Your task to perform on an android device: snooze an email in the gmail app Image 0: 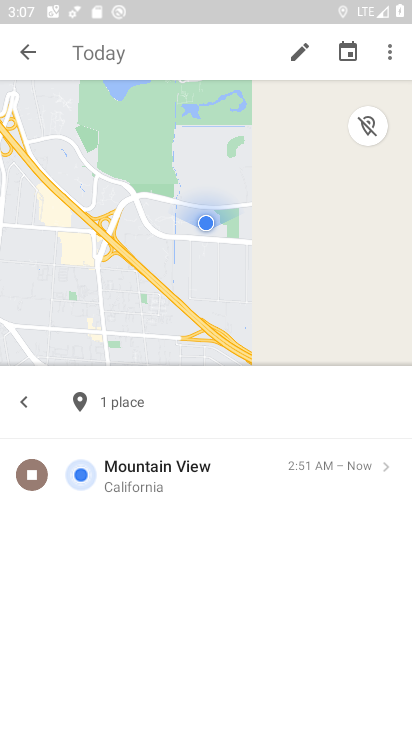
Step 0: press home button
Your task to perform on an android device: snooze an email in the gmail app Image 1: 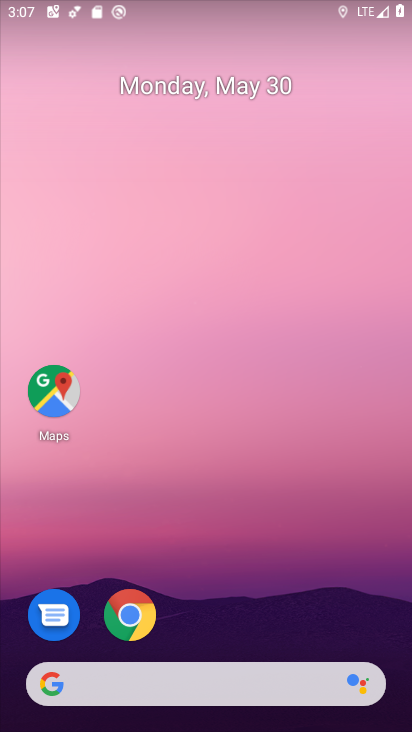
Step 1: drag from (228, 606) to (236, 37)
Your task to perform on an android device: snooze an email in the gmail app Image 2: 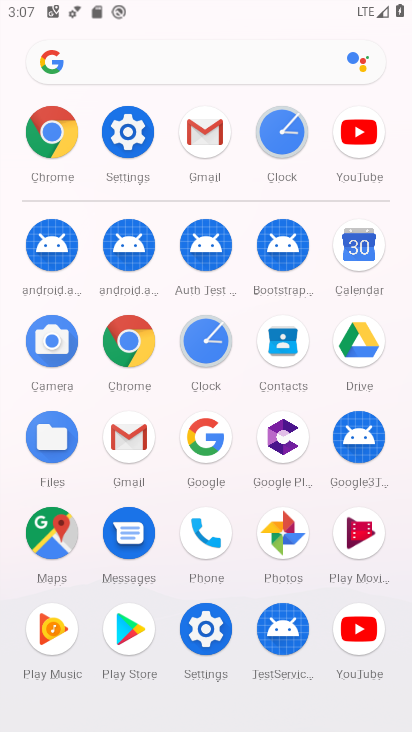
Step 2: click (209, 122)
Your task to perform on an android device: snooze an email in the gmail app Image 3: 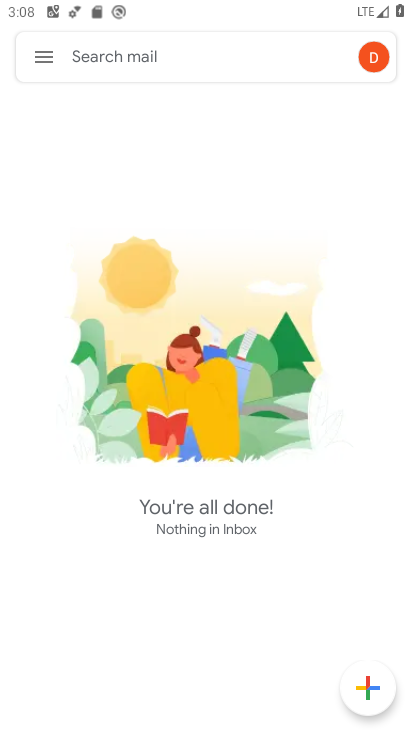
Step 3: click (45, 55)
Your task to perform on an android device: snooze an email in the gmail app Image 4: 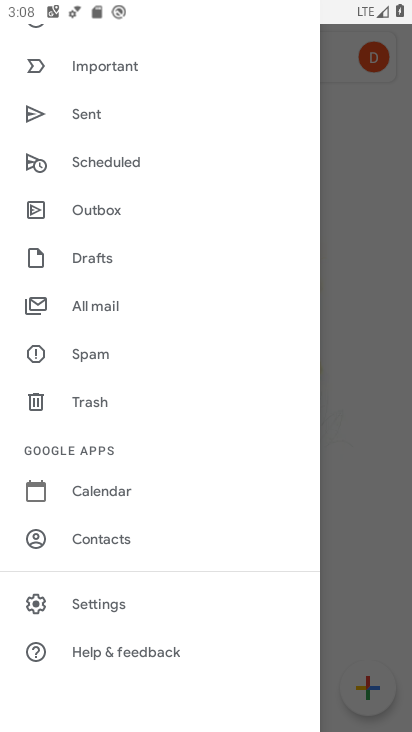
Step 4: click (105, 302)
Your task to perform on an android device: snooze an email in the gmail app Image 5: 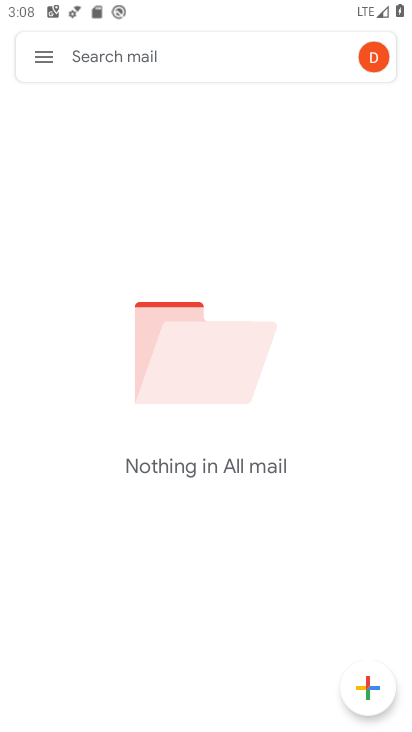
Step 5: task complete